Your task to perform on an android device: check android version Image 0: 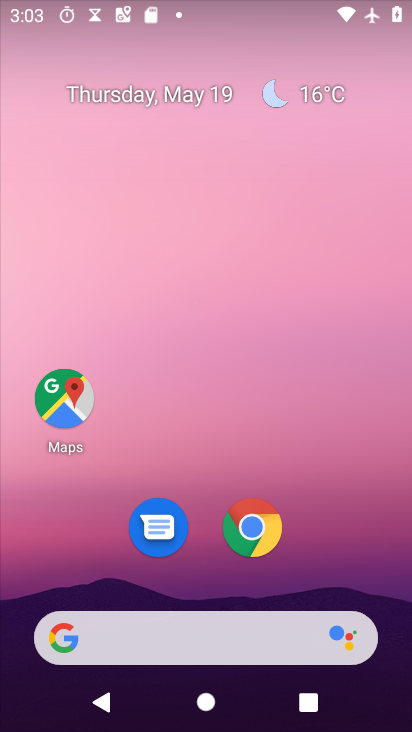
Step 0: drag from (309, 396) to (246, 55)
Your task to perform on an android device: check android version Image 1: 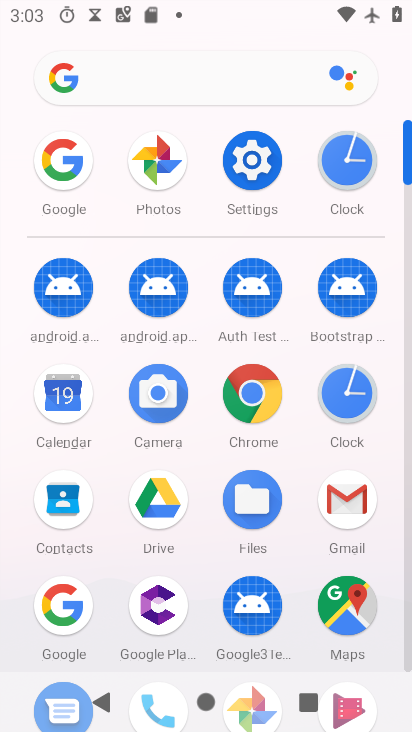
Step 1: click (251, 172)
Your task to perform on an android device: check android version Image 2: 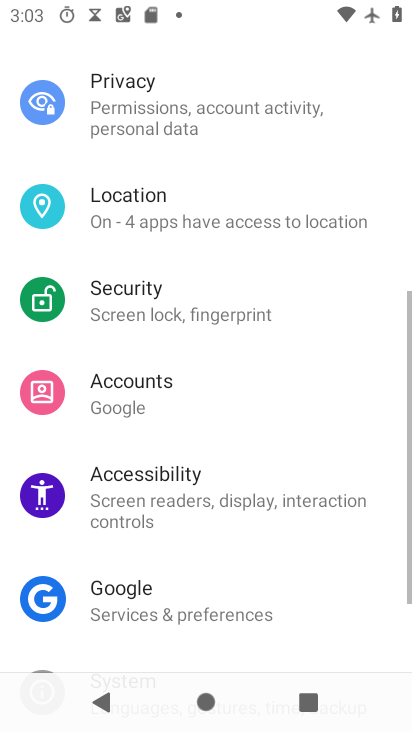
Step 2: drag from (263, 606) to (263, 98)
Your task to perform on an android device: check android version Image 3: 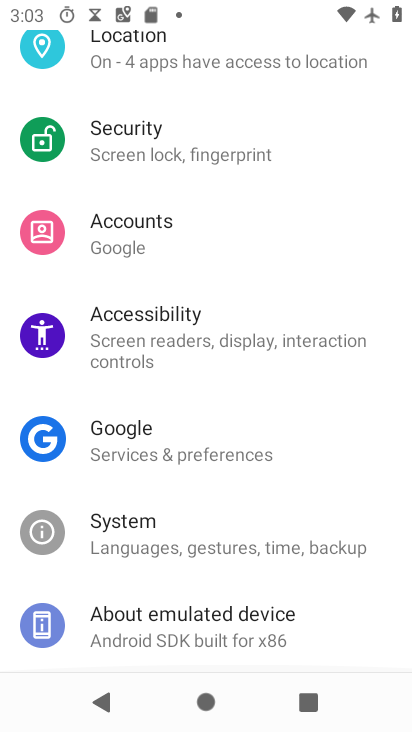
Step 3: drag from (268, 489) to (257, 177)
Your task to perform on an android device: check android version Image 4: 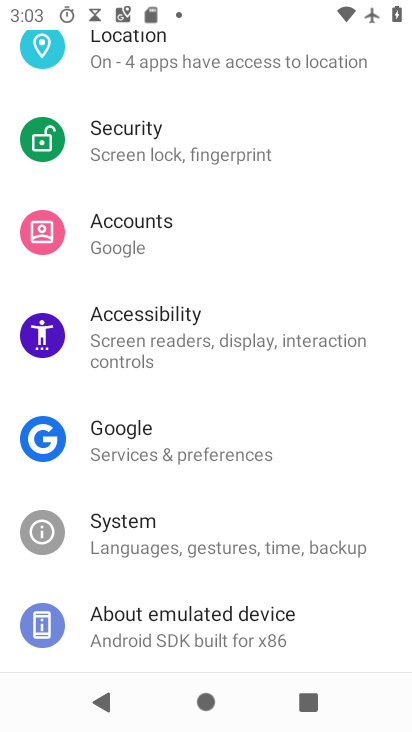
Step 4: drag from (302, 522) to (280, 236)
Your task to perform on an android device: check android version Image 5: 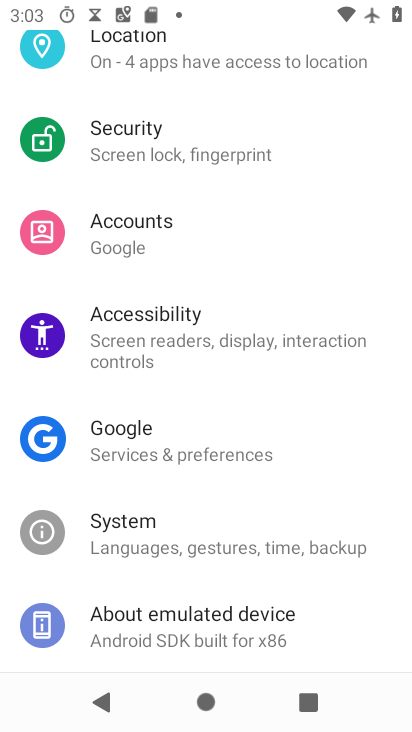
Step 5: click (219, 620)
Your task to perform on an android device: check android version Image 6: 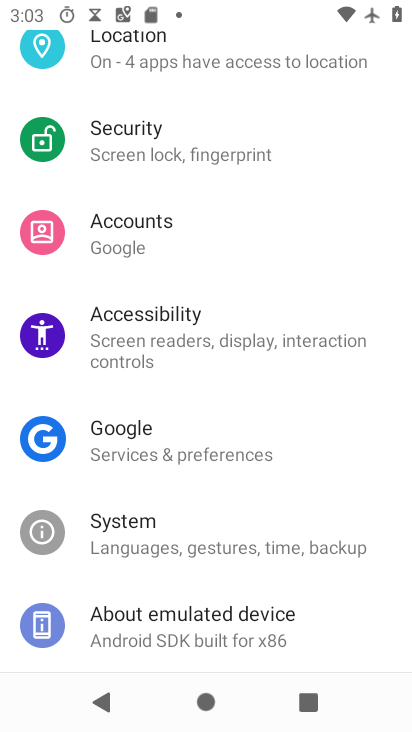
Step 6: click (221, 615)
Your task to perform on an android device: check android version Image 7: 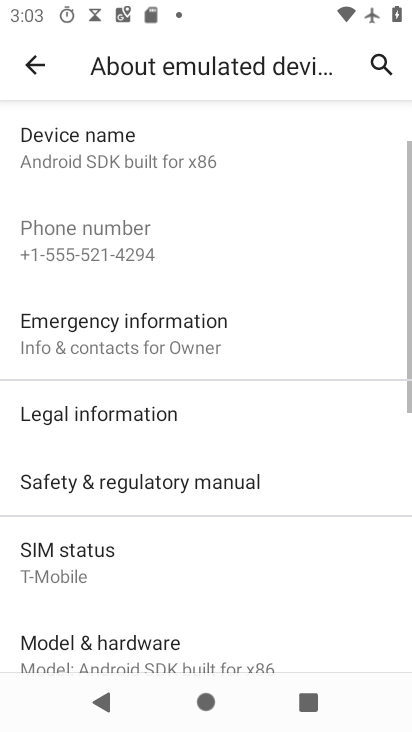
Step 7: drag from (277, 578) to (218, 100)
Your task to perform on an android device: check android version Image 8: 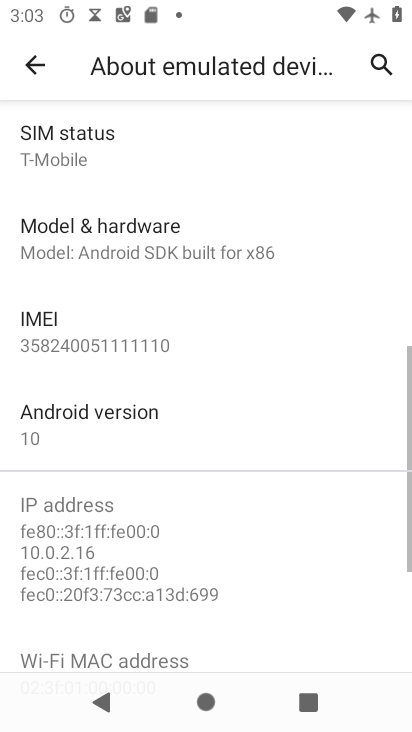
Step 8: click (205, 419)
Your task to perform on an android device: check android version Image 9: 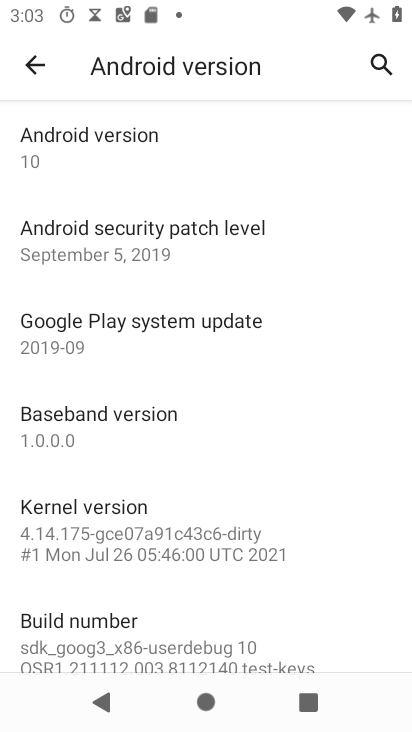
Step 9: task complete